Your task to perform on an android device: turn pop-ups off in chrome Image 0: 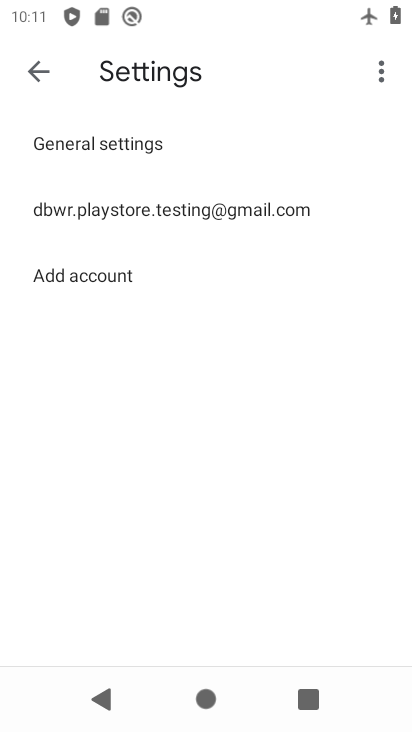
Step 0: press home button
Your task to perform on an android device: turn pop-ups off in chrome Image 1: 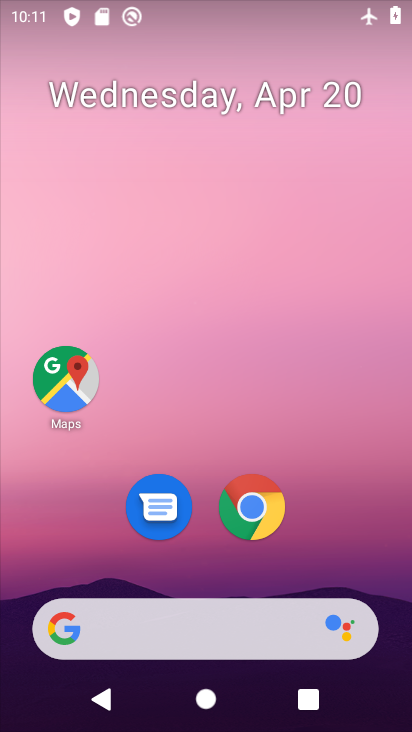
Step 1: click (256, 511)
Your task to perform on an android device: turn pop-ups off in chrome Image 2: 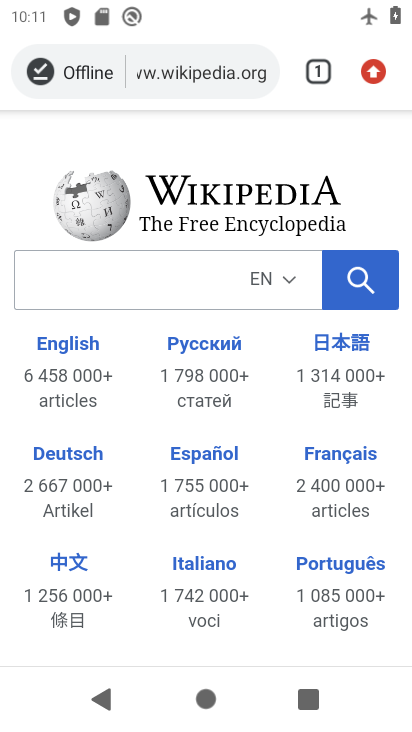
Step 2: click (374, 74)
Your task to perform on an android device: turn pop-ups off in chrome Image 3: 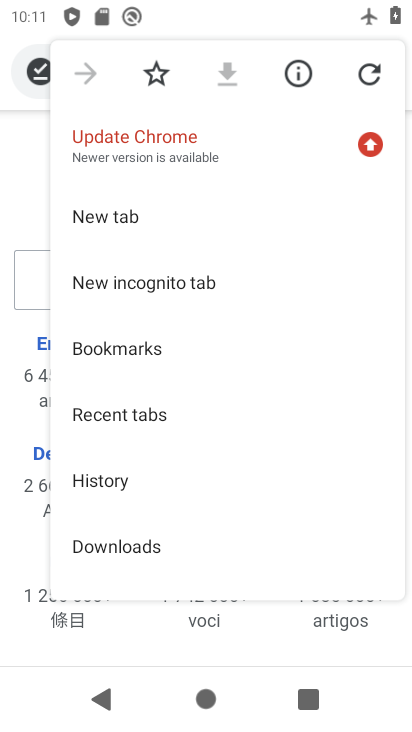
Step 3: drag from (158, 463) to (156, 76)
Your task to perform on an android device: turn pop-ups off in chrome Image 4: 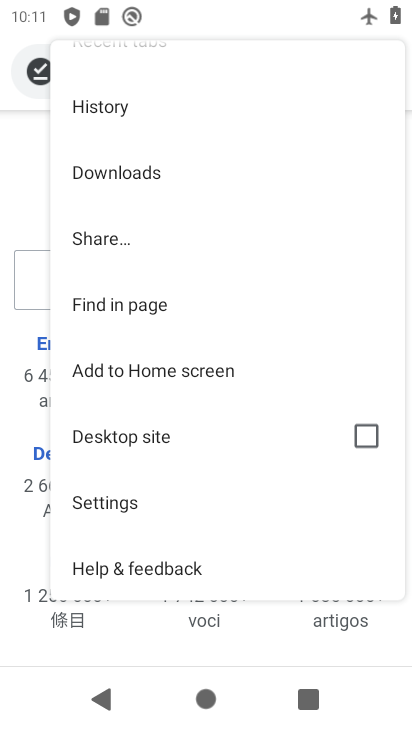
Step 4: click (108, 505)
Your task to perform on an android device: turn pop-ups off in chrome Image 5: 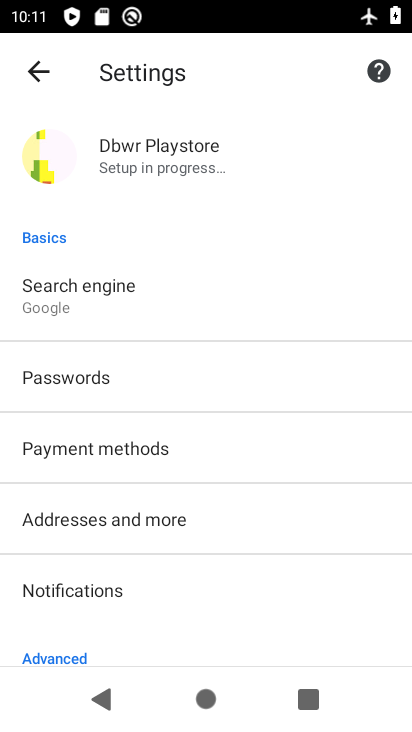
Step 5: drag from (184, 598) to (236, 306)
Your task to perform on an android device: turn pop-ups off in chrome Image 6: 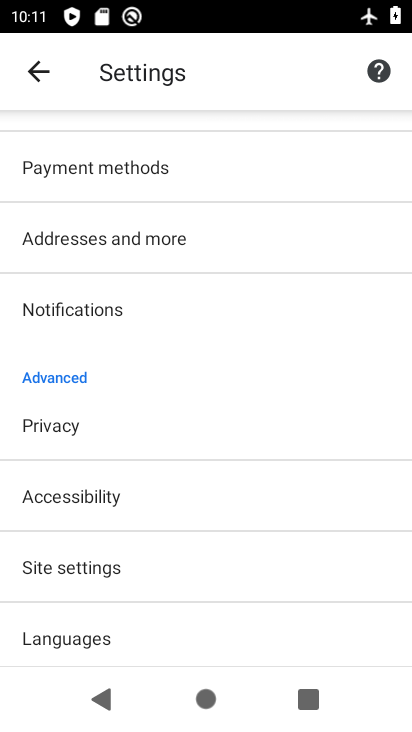
Step 6: click (93, 576)
Your task to perform on an android device: turn pop-ups off in chrome Image 7: 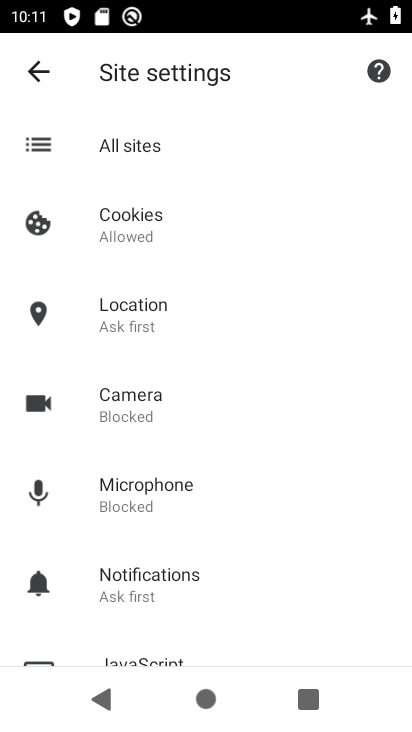
Step 7: drag from (170, 463) to (205, 207)
Your task to perform on an android device: turn pop-ups off in chrome Image 8: 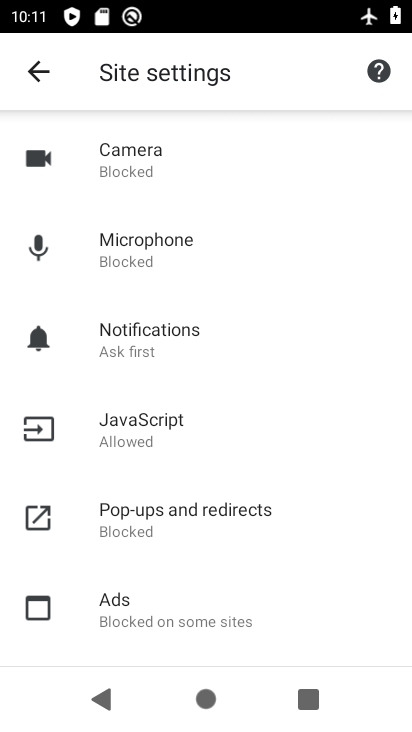
Step 8: click (168, 528)
Your task to perform on an android device: turn pop-ups off in chrome Image 9: 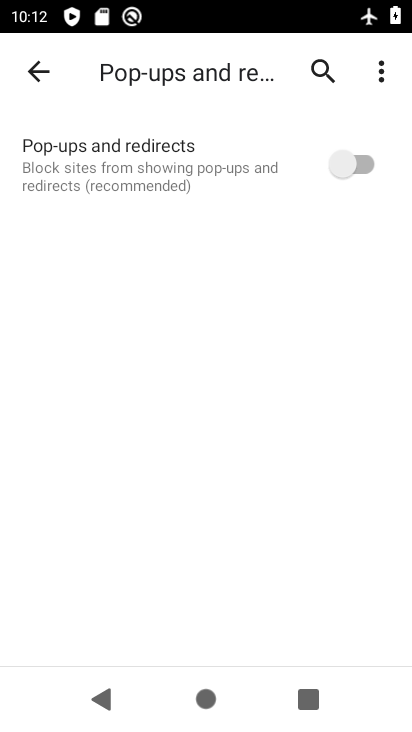
Step 9: task complete